Your task to perform on an android device: change alarm snooze length Image 0: 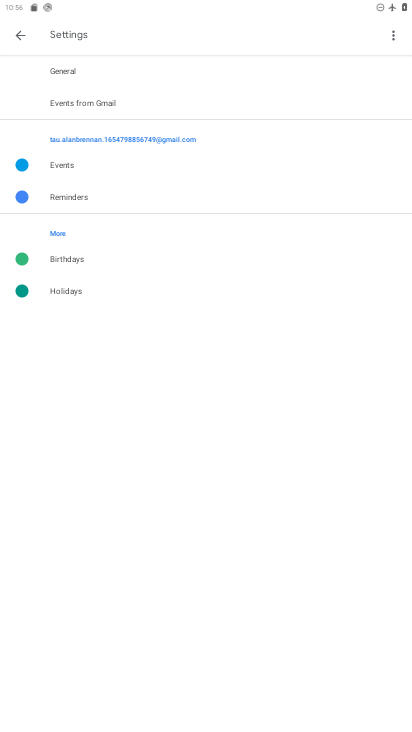
Step 0: press home button
Your task to perform on an android device: change alarm snooze length Image 1: 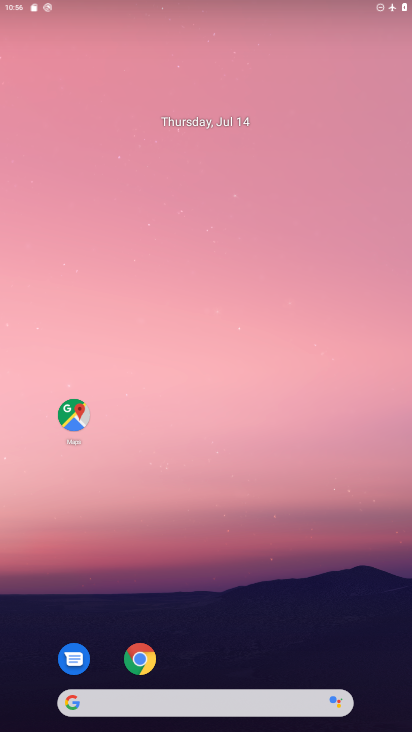
Step 1: drag from (273, 612) to (286, 198)
Your task to perform on an android device: change alarm snooze length Image 2: 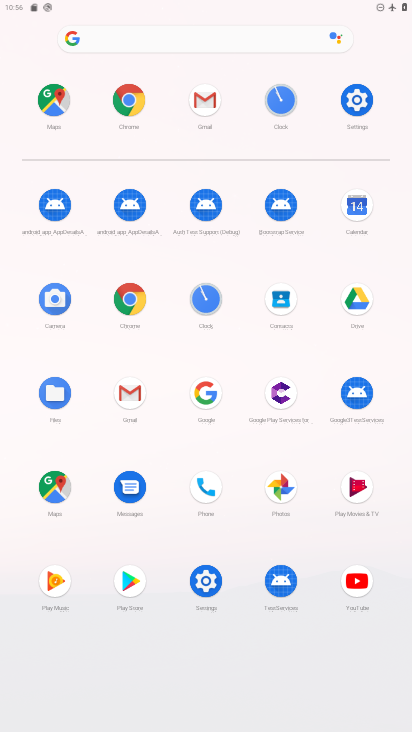
Step 2: click (212, 297)
Your task to perform on an android device: change alarm snooze length Image 3: 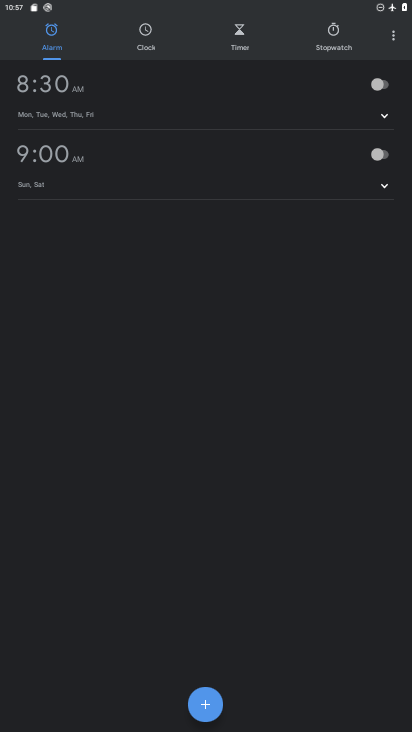
Step 3: click (386, 40)
Your task to perform on an android device: change alarm snooze length Image 4: 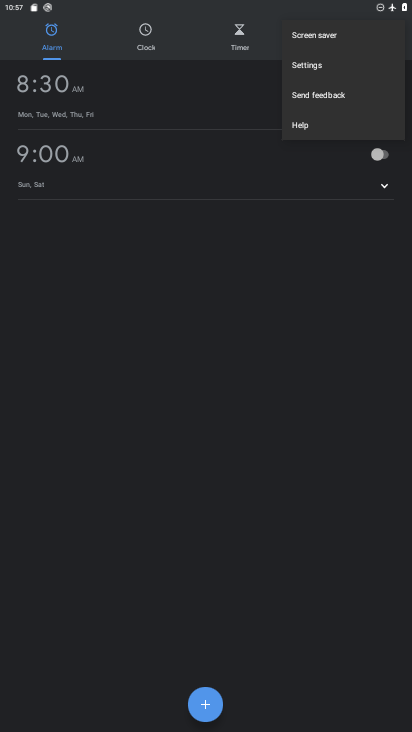
Step 4: click (326, 61)
Your task to perform on an android device: change alarm snooze length Image 5: 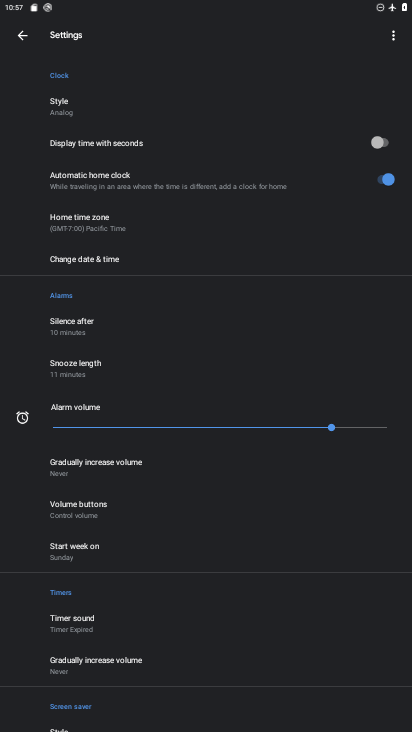
Step 5: click (96, 357)
Your task to perform on an android device: change alarm snooze length Image 6: 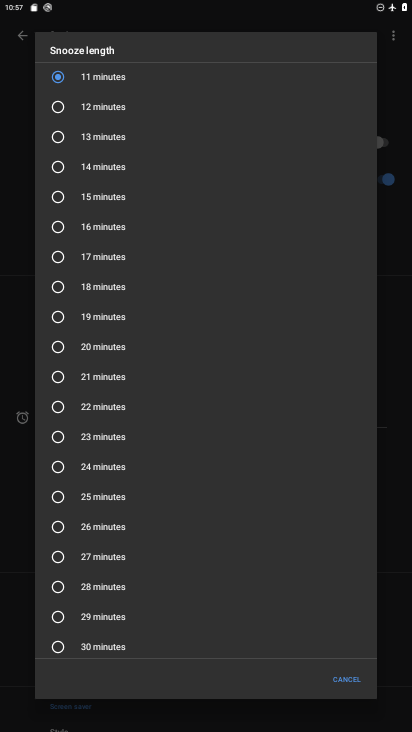
Step 6: click (115, 107)
Your task to perform on an android device: change alarm snooze length Image 7: 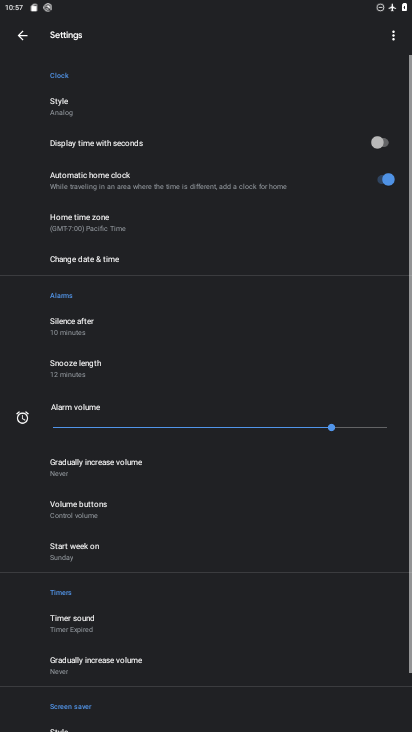
Step 7: task complete